Your task to perform on an android device: Open Chrome and go to settings Image 0: 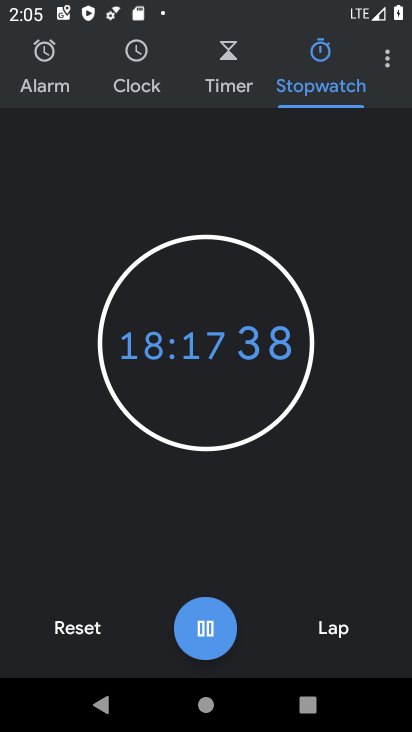
Step 0: press home button
Your task to perform on an android device: Open Chrome and go to settings Image 1: 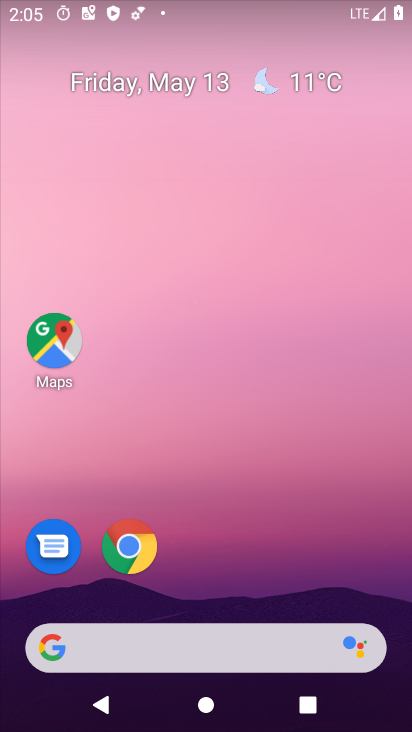
Step 1: click (128, 552)
Your task to perform on an android device: Open Chrome and go to settings Image 2: 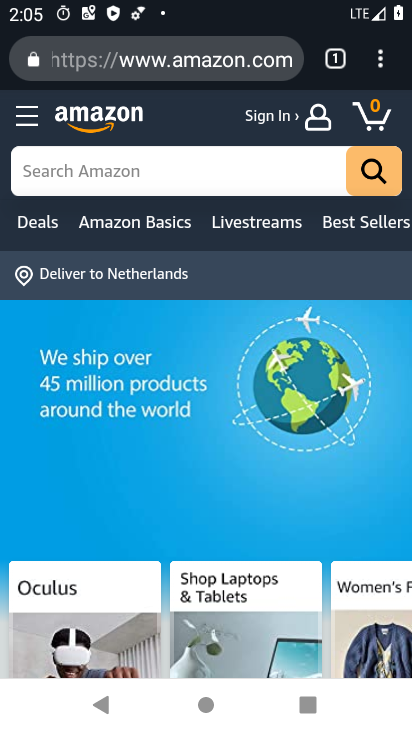
Step 2: click (384, 61)
Your task to perform on an android device: Open Chrome and go to settings Image 3: 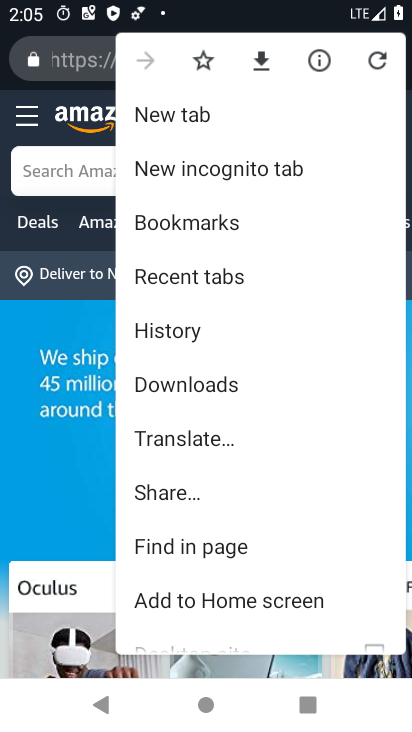
Step 3: drag from (203, 501) to (232, 244)
Your task to perform on an android device: Open Chrome and go to settings Image 4: 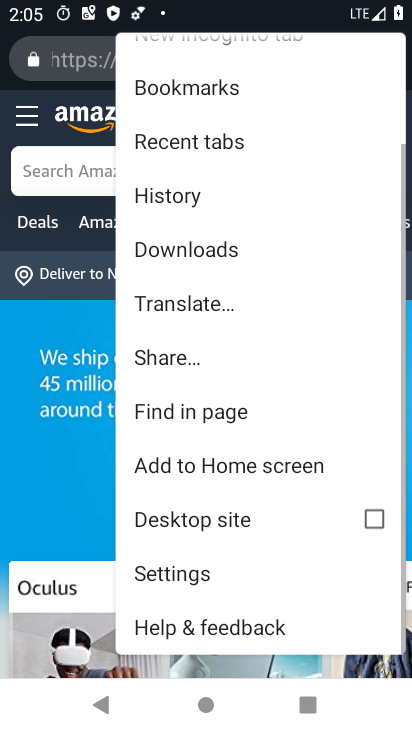
Step 4: click (184, 573)
Your task to perform on an android device: Open Chrome and go to settings Image 5: 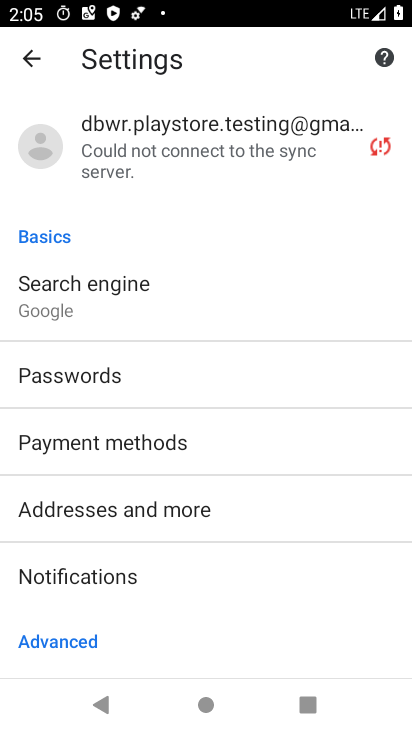
Step 5: task complete